Your task to perform on an android device: allow notifications from all sites in the chrome app Image 0: 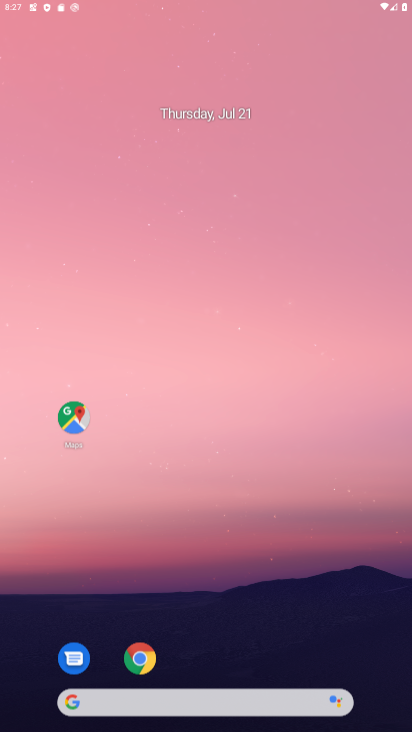
Step 0: press home button
Your task to perform on an android device: allow notifications from all sites in the chrome app Image 1: 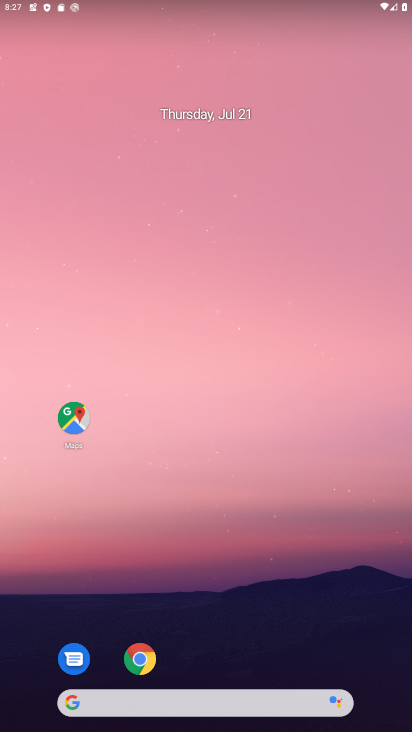
Step 1: click (136, 652)
Your task to perform on an android device: allow notifications from all sites in the chrome app Image 2: 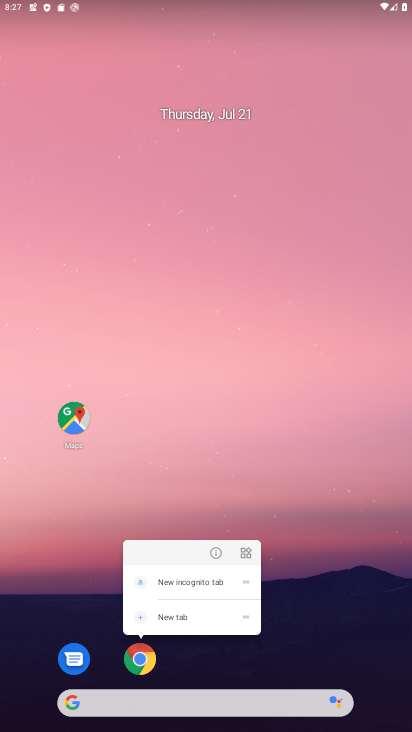
Step 2: click (135, 654)
Your task to perform on an android device: allow notifications from all sites in the chrome app Image 3: 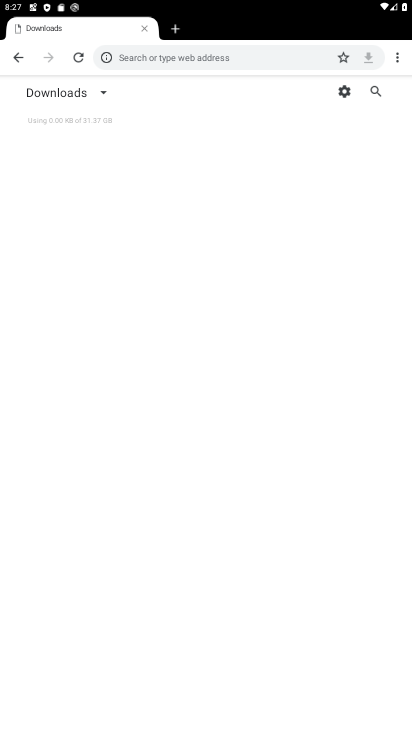
Step 3: click (397, 56)
Your task to perform on an android device: allow notifications from all sites in the chrome app Image 4: 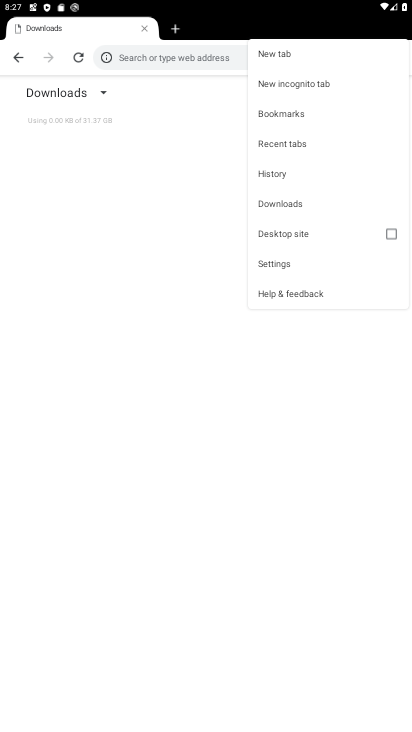
Step 4: click (287, 261)
Your task to perform on an android device: allow notifications from all sites in the chrome app Image 5: 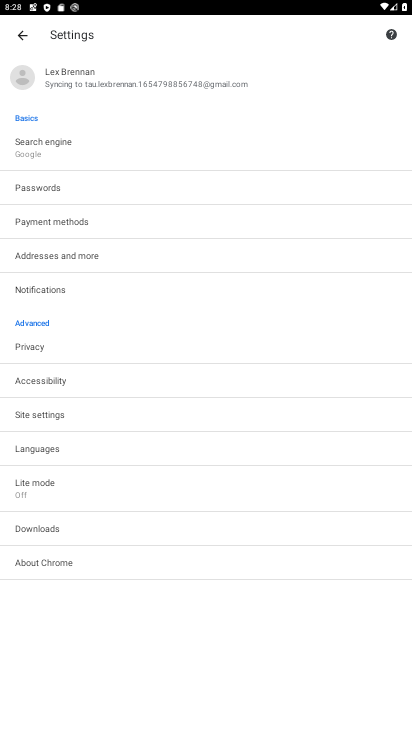
Step 5: click (70, 417)
Your task to perform on an android device: allow notifications from all sites in the chrome app Image 6: 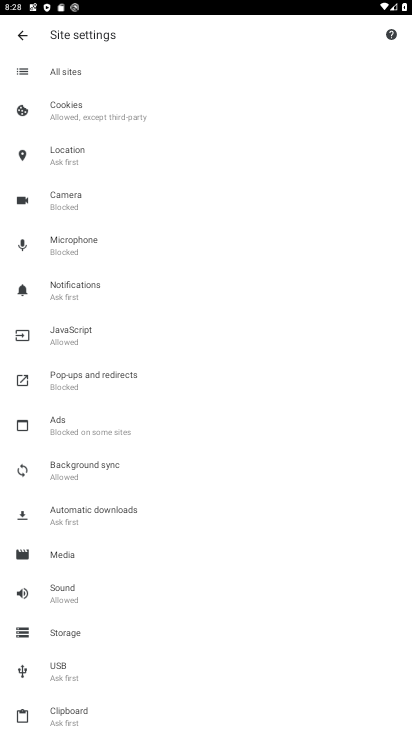
Step 6: click (77, 74)
Your task to perform on an android device: allow notifications from all sites in the chrome app Image 7: 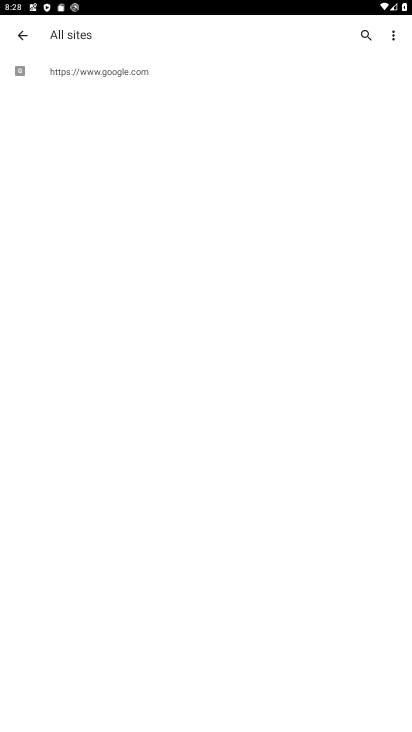
Step 7: click (107, 67)
Your task to perform on an android device: allow notifications from all sites in the chrome app Image 8: 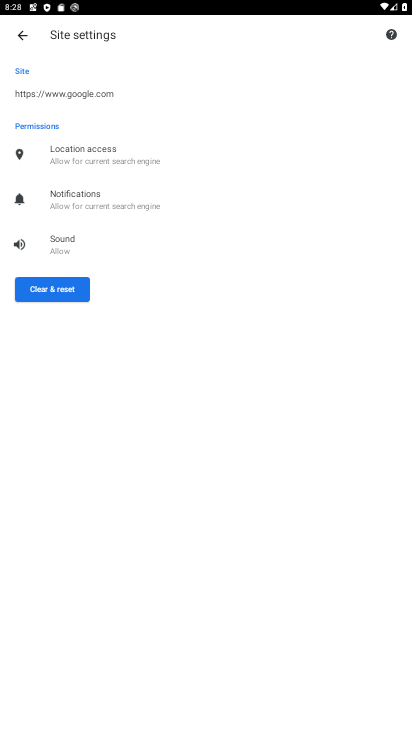
Step 8: task complete